Your task to perform on an android device: Is it going to rain tomorrow? Image 0: 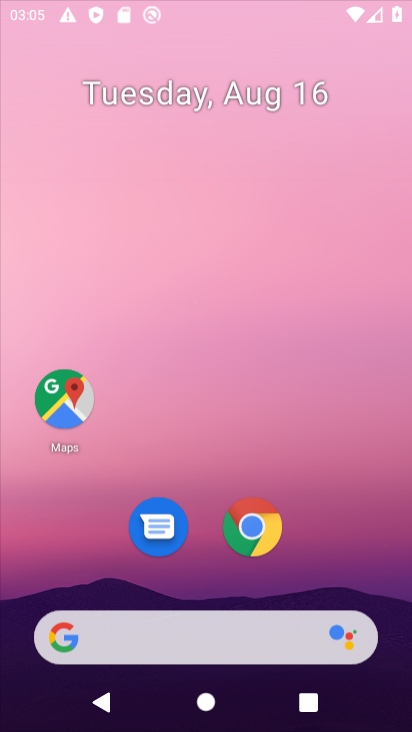
Step 0: press home button
Your task to perform on an android device: Is it going to rain tomorrow? Image 1: 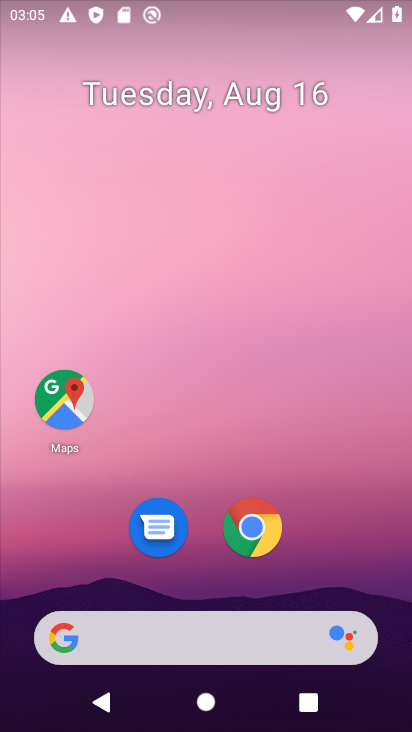
Step 1: drag from (19, 271) to (363, 330)
Your task to perform on an android device: Is it going to rain tomorrow? Image 2: 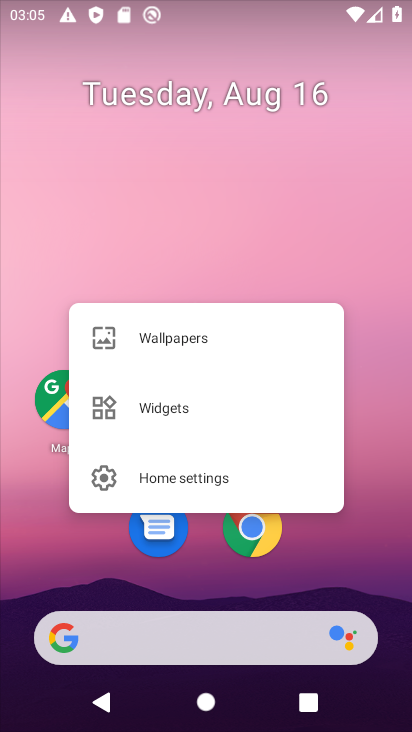
Step 2: click (47, 188)
Your task to perform on an android device: Is it going to rain tomorrow? Image 3: 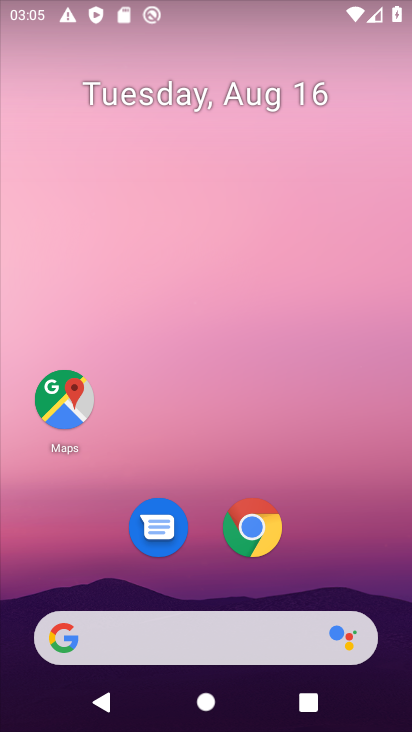
Step 3: drag from (4, 255) to (404, 261)
Your task to perform on an android device: Is it going to rain tomorrow? Image 4: 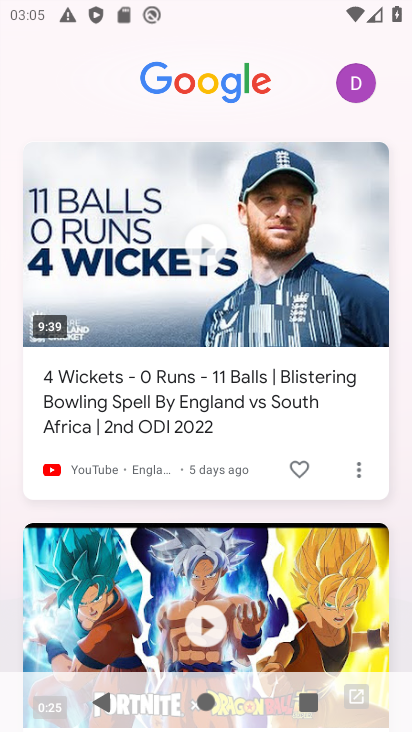
Step 4: press home button
Your task to perform on an android device: Is it going to rain tomorrow? Image 5: 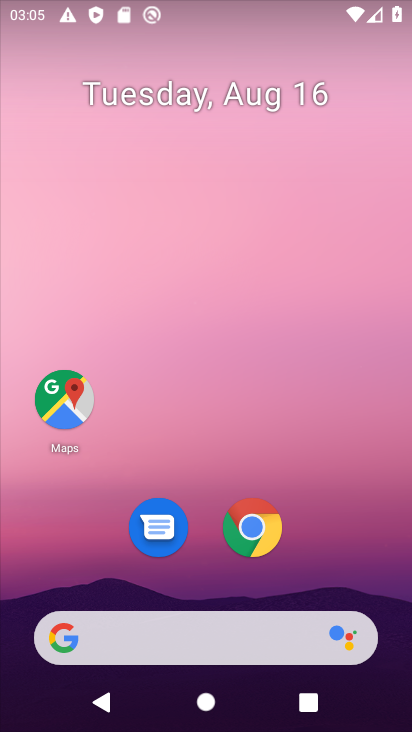
Step 5: click (146, 632)
Your task to perform on an android device: Is it going to rain tomorrow? Image 6: 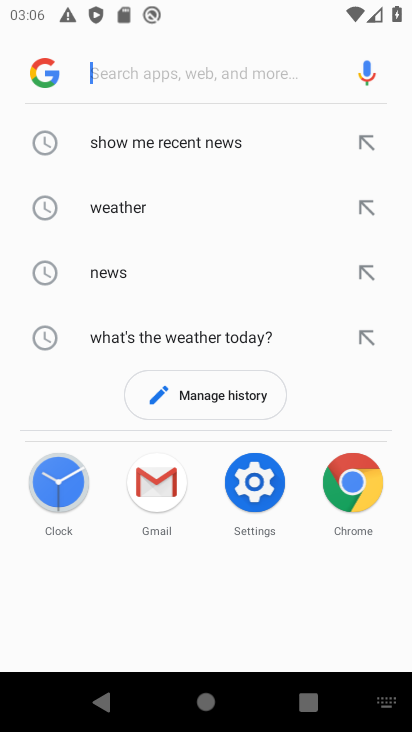
Step 6: click (116, 220)
Your task to perform on an android device: Is it going to rain tomorrow? Image 7: 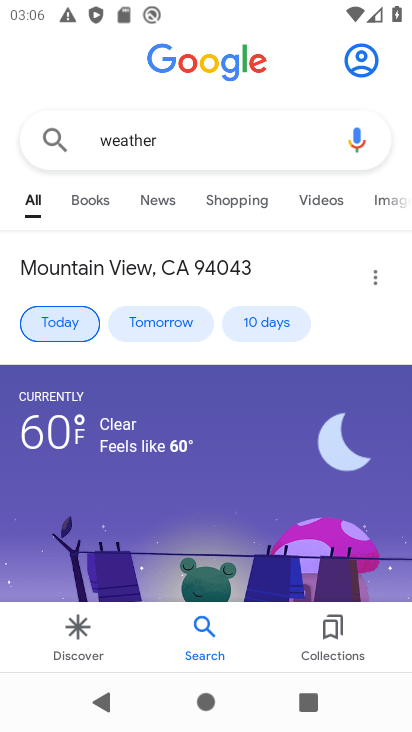
Step 7: click (151, 306)
Your task to perform on an android device: Is it going to rain tomorrow? Image 8: 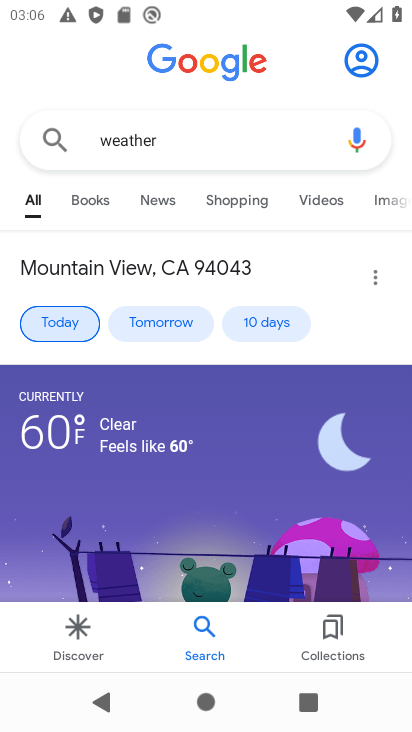
Step 8: click (163, 320)
Your task to perform on an android device: Is it going to rain tomorrow? Image 9: 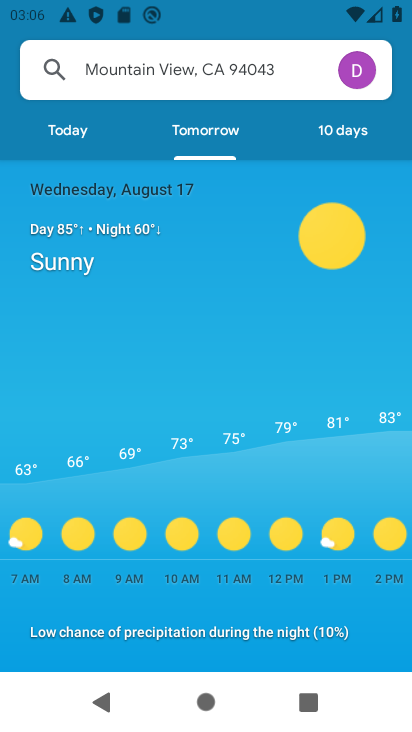
Step 9: task complete